Your task to perform on an android device: toggle javascript in the chrome app Image 0: 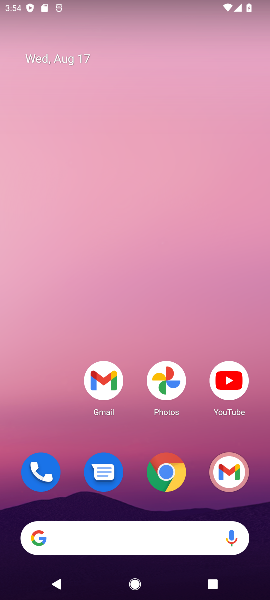
Step 0: click (170, 485)
Your task to perform on an android device: toggle javascript in the chrome app Image 1: 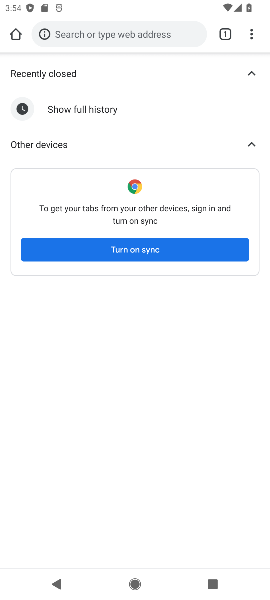
Step 1: click (249, 34)
Your task to perform on an android device: toggle javascript in the chrome app Image 2: 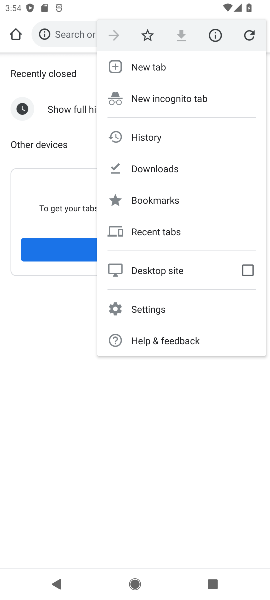
Step 2: click (160, 316)
Your task to perform on an android device: toggle javascript in the chrome app Image 3: 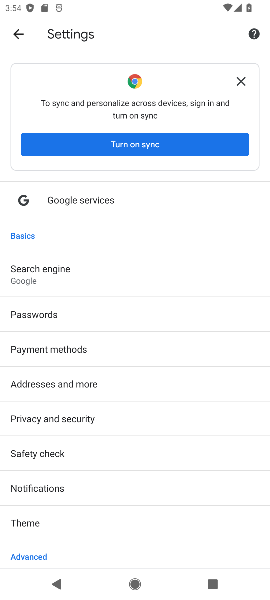
Step 3: drag from (92, 515) to (97, 273)
Your task to perform on an android device: toggle javascript in the chrome app Image 4: 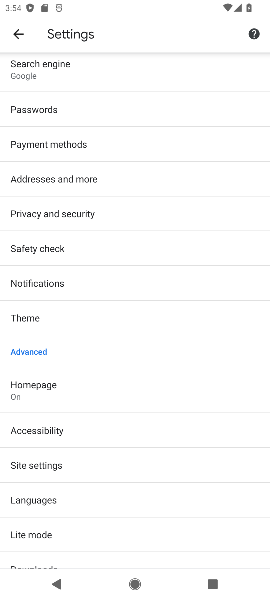
Step 4: click (80, 472)
Your task to perform on an android device: toggle javascript in the chrome app Image 5: 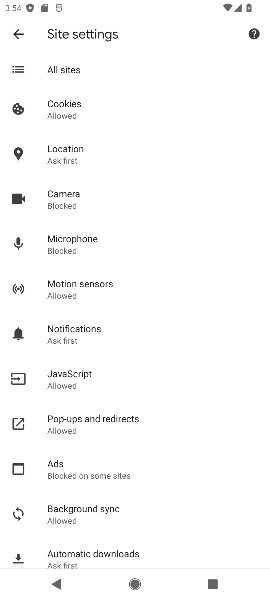
Step 5: click (82, 386)
Your task to perform on an android device: toggle javascript in the chrome app Image 6: 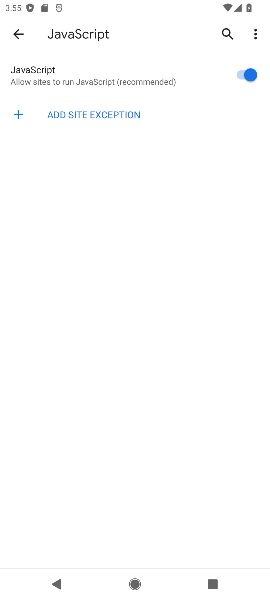
Step 6: click (231, 73)
Your task to perform on an android device: toggle javascript in the chrome app Image 7: 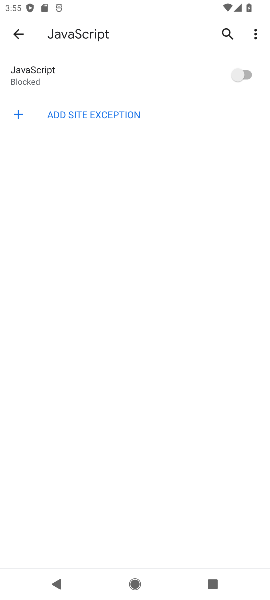
Step 7: task complete